Your task to perform on an android device: When is my next appointment? Image 0: 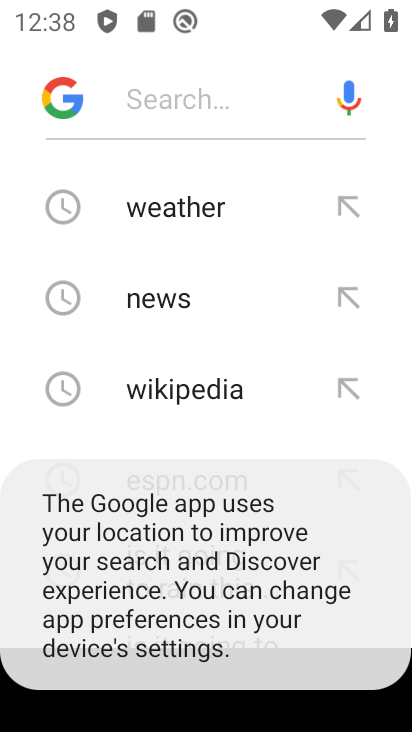
Step 0: press home button
Your task to perform on an android device: When is my next appointment? Image 1: 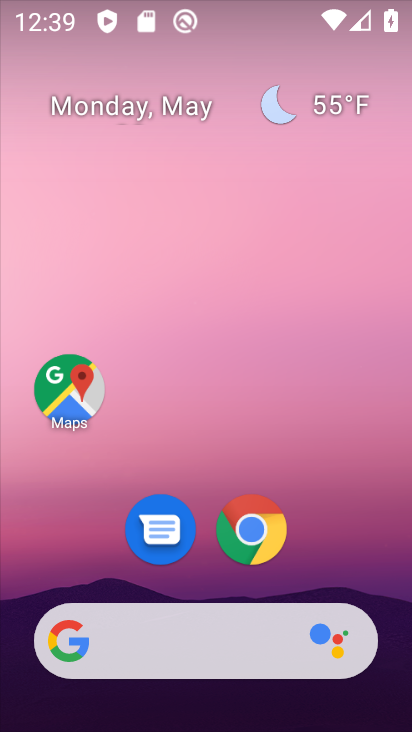
Step 1: drag from (191, 597) to (235, 159)
Your task to perform on an android device: When is my next appointment? Image 2: 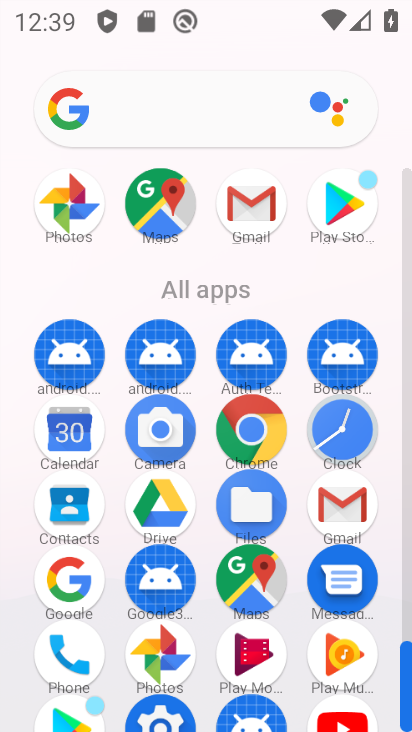
Step 2: click (70, 440)
Your task to perform on an android device: When is my next appointment? Image 3: 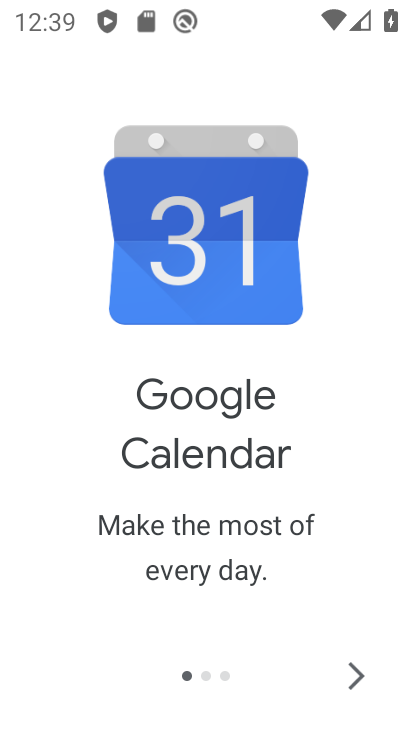
Step 3: click (361, 673)
Your task to perform on an android device: When is my next appointment? Image 4: 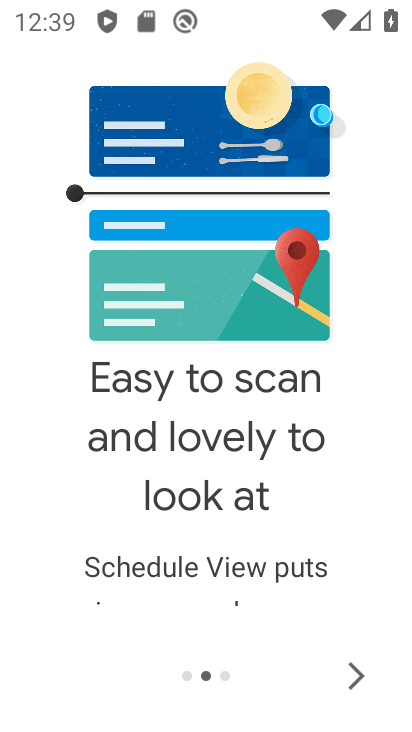
Step 4: click (366, 675)
Your task to perform on an android device: When is my next appointment? Image 5: 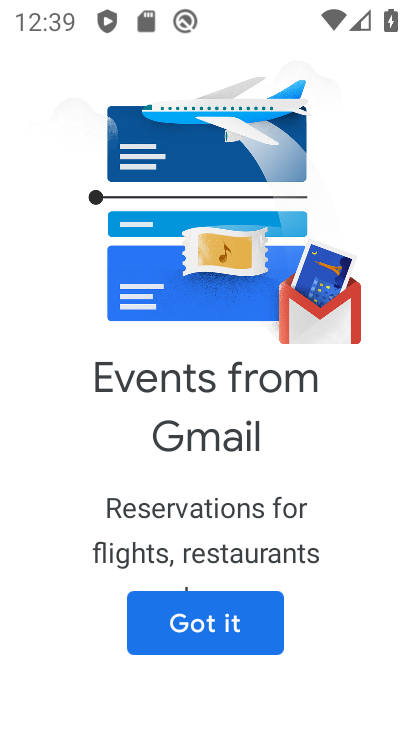
Step 5: click (262, 629)
Your task to perform on an android device: When is my next appointment? Image 6: 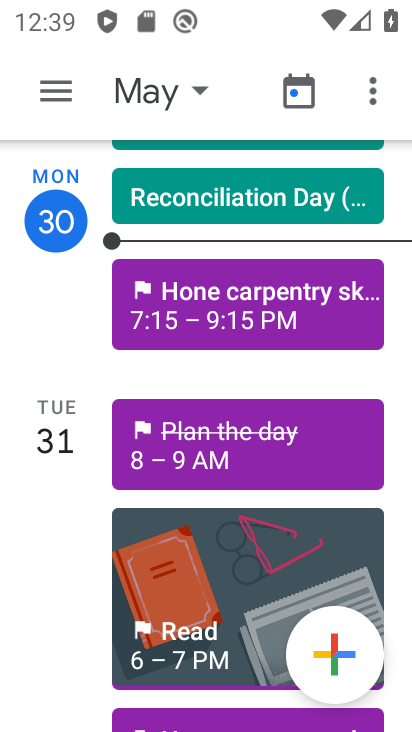
Step 6: click (199, 86)
Your task to perform on an android device: When is my next appointment? Image 7: 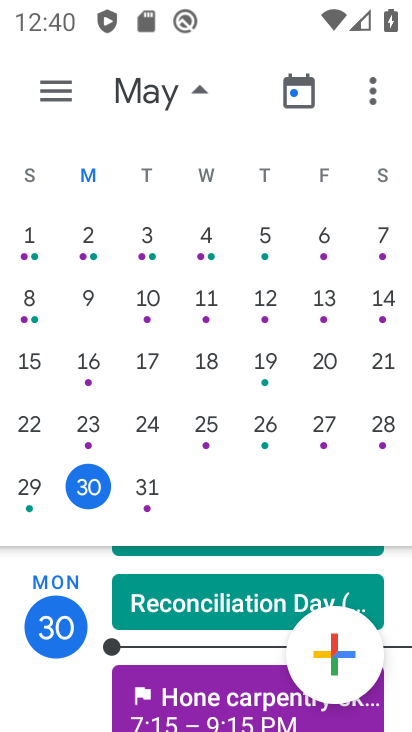
Step 7: click (142, 494)
Your task to perform on an android device: When is my next appointment? Image 8: 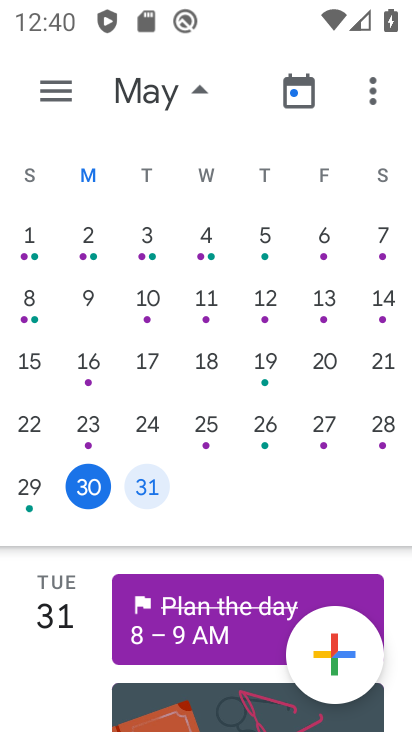
Step 8: drag from (322, 468) to (37, 461)
Your task to perform on an android device: When is my next appointment? Image 9: 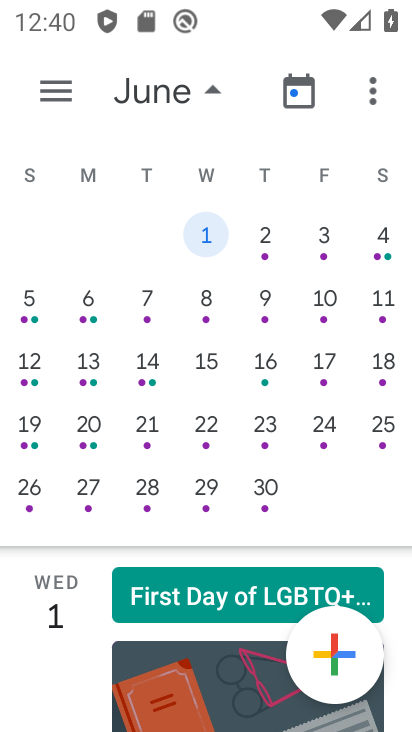
Step 9: click (259, 238)
Your task to perform on an android device: When is my next appointment? Image 10: 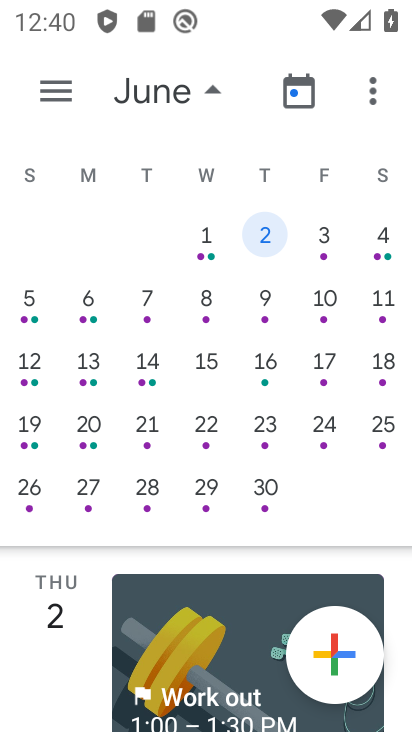
Step 10: click (335, 242)
Your task to perform on an android device: When is my next appointment? Image 11: 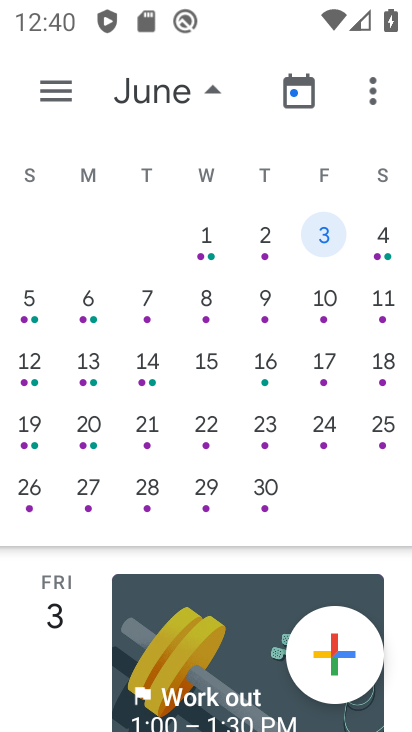
Step 11: click (381, 240)
Your task to perform on an android device: When is my next appointment? Image 12: 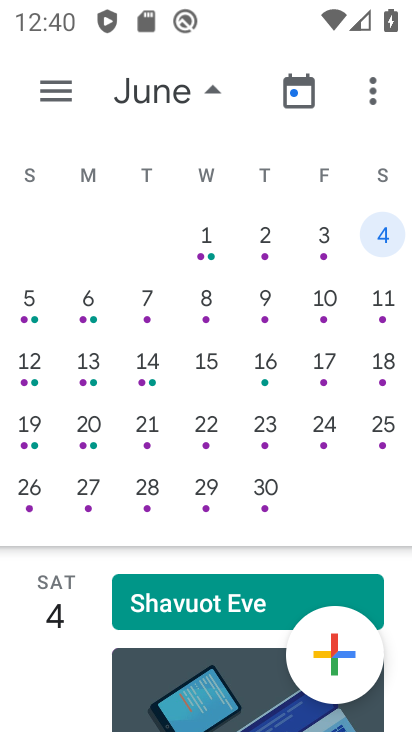
Step 12: task complete